Your task to perform on an android device: toggle improve location accuracy Image 0: 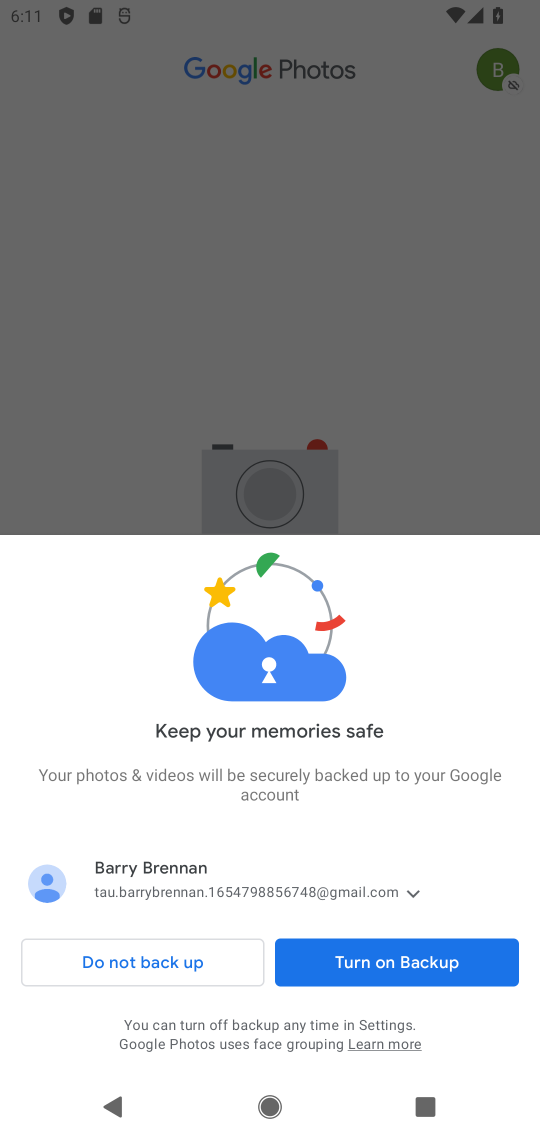
Step 0: click (419, 952)
Your task to perform on an android device: toggle improve location accuracy Image 1: 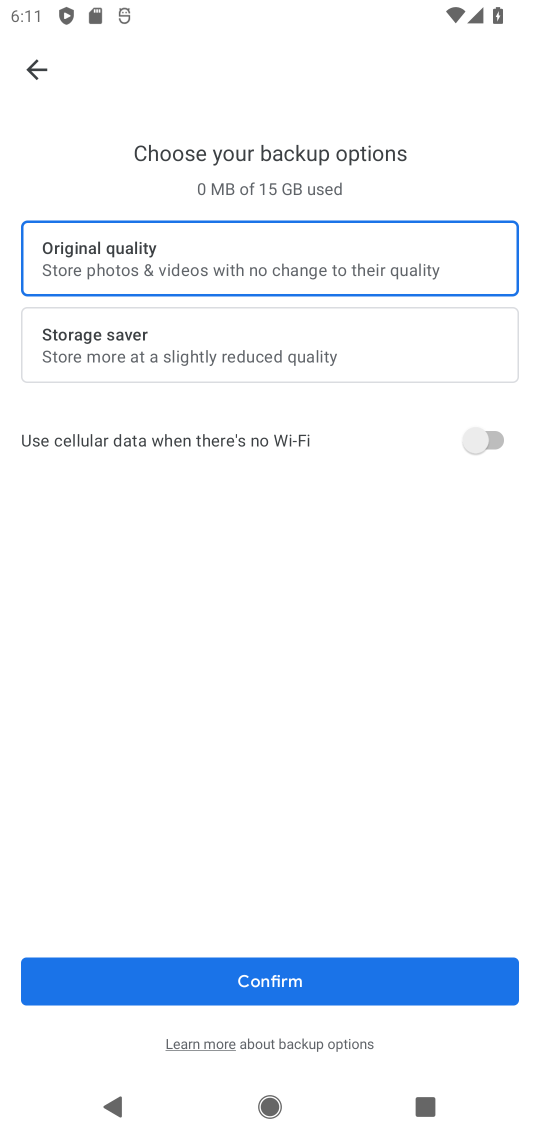
Step 1: press home button
Your task to perform on an android device: toggle improve location accuracy Image 2: 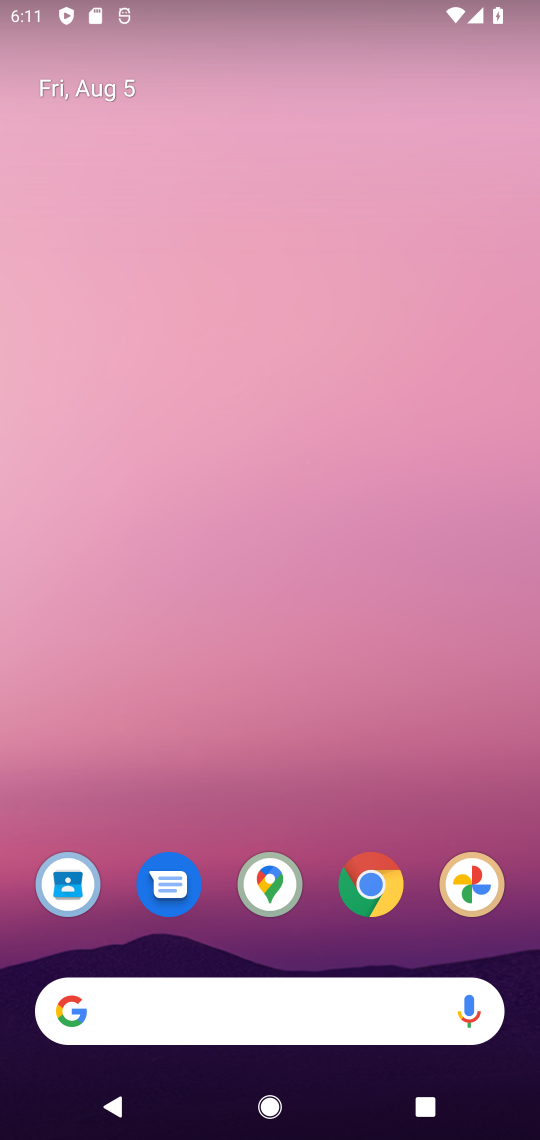
Step 2: drag from (324, 894) to (314, 180)
Your task to perform on an android device: toggle improve location accuracy Image 3: 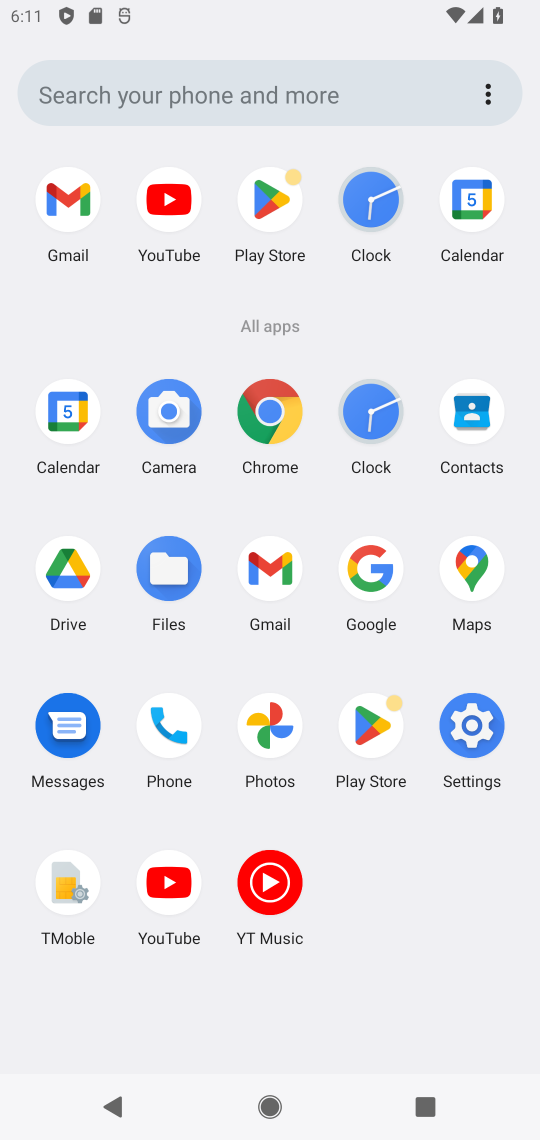
Step 3: click (486, 730)
Your task to perform on an android device: toggle improve location accuracy Image 4: 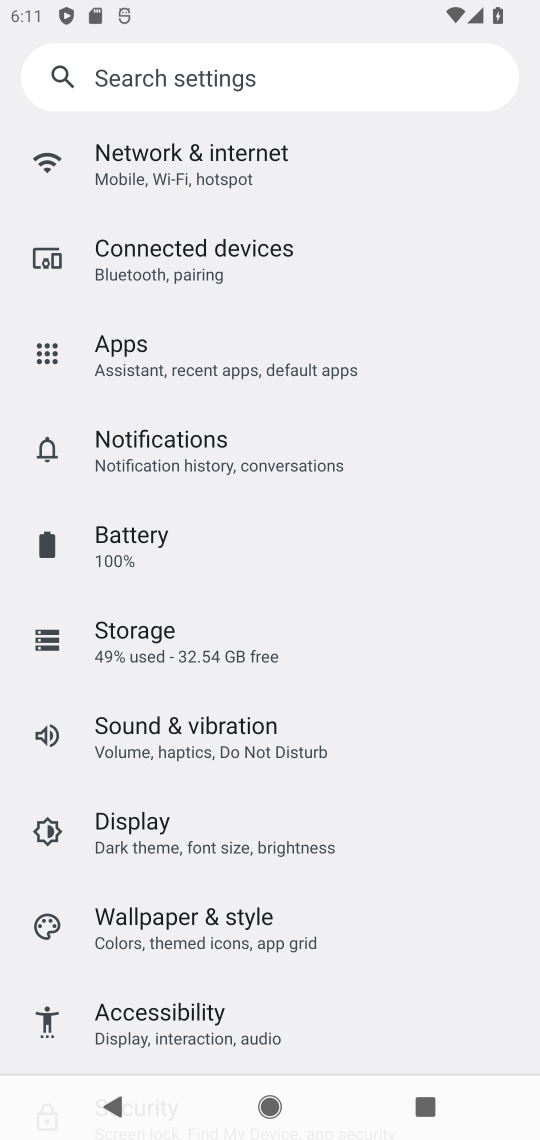
Step 4: drag from (218, 978) to (211, 606)
Your task to perform on an android device: toggle improve location accuracy Image 5: 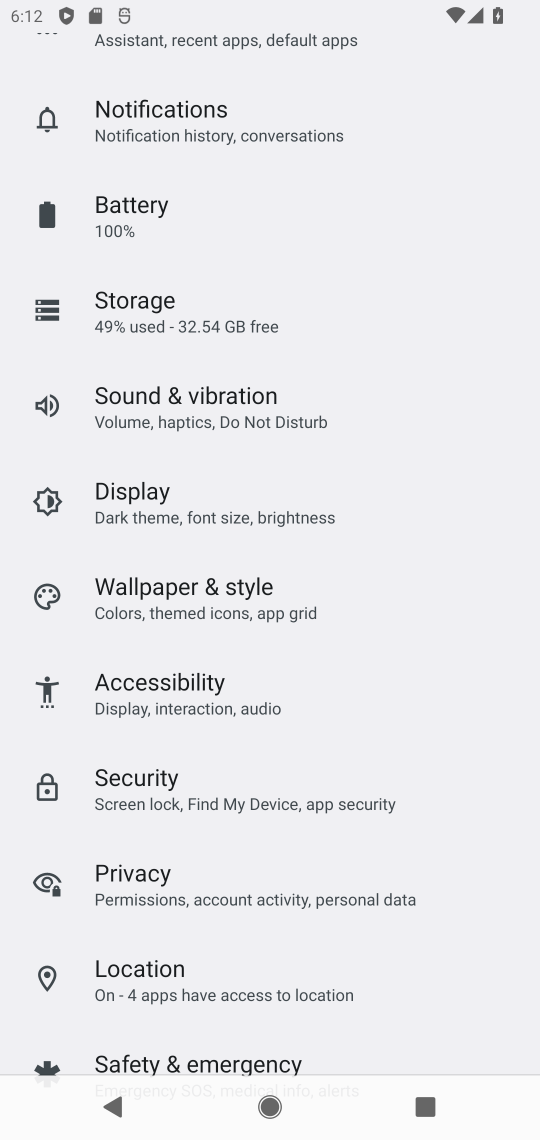
Step 5: click (207, 955)
Your task to perform on an android device: toggle improve location accuracy Image 6: 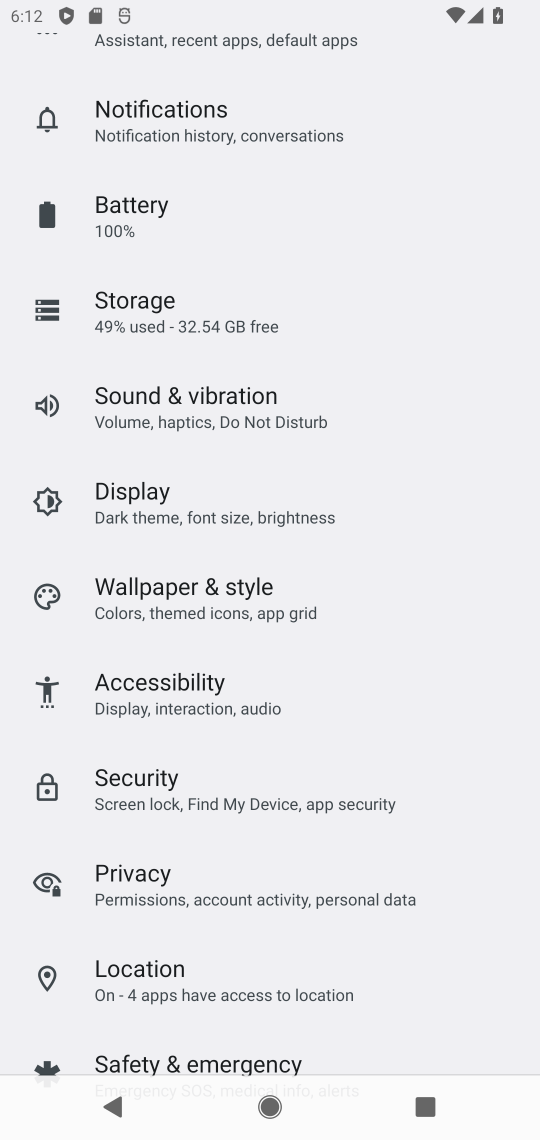
Step 6: click (202, 973)
Your task to perform on an android device: toggle improve location accuracy Image 7: 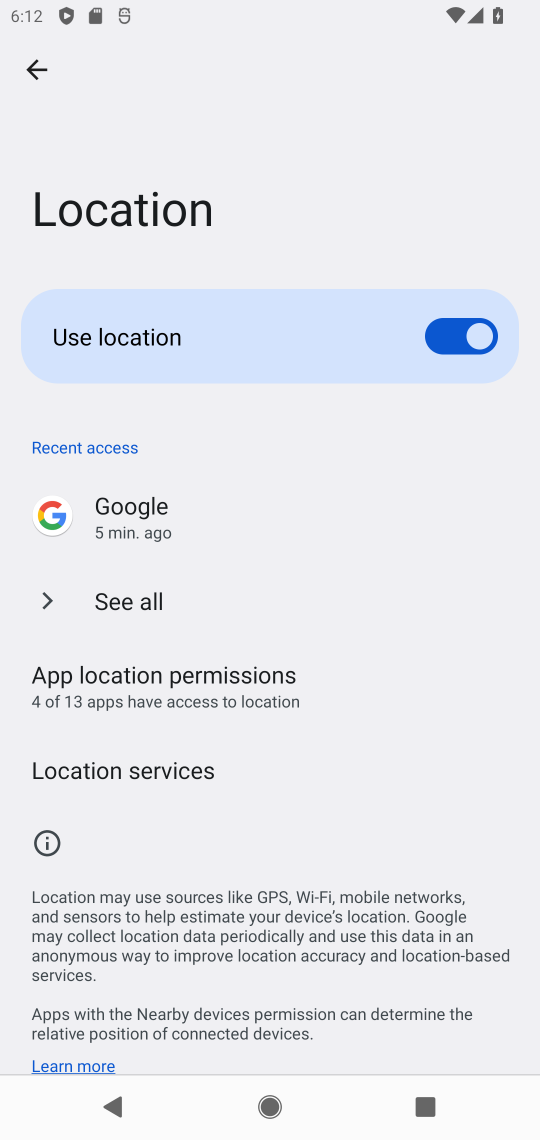
Step 7: click (67, 770)
Your task to perform on an android device: toggle improve location accuracy Image 8: 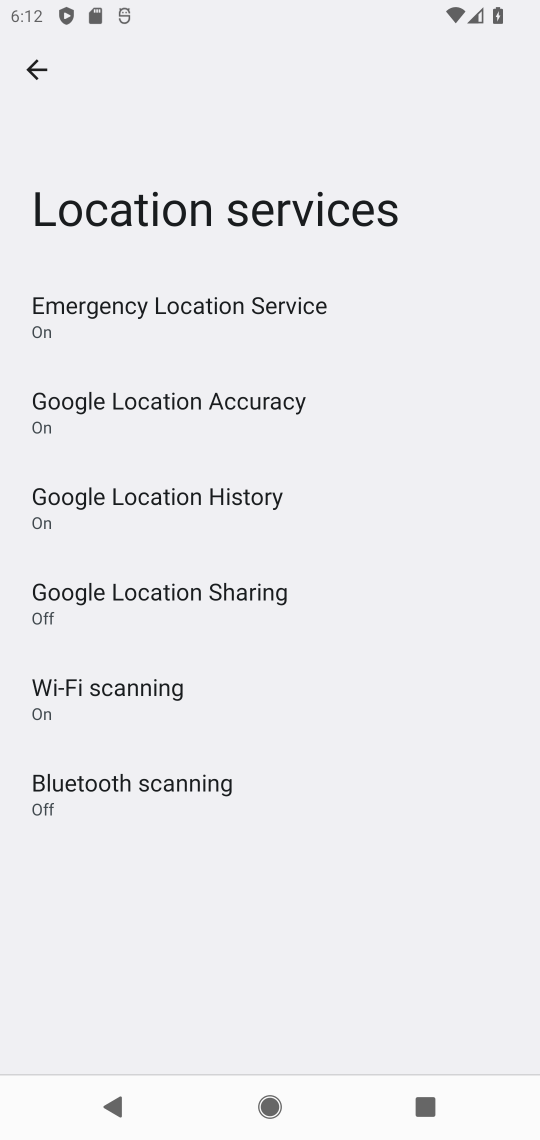
Step 8: click (72, 411)
Your task to perform on an android device: toggle improve location accuracy Image 9: 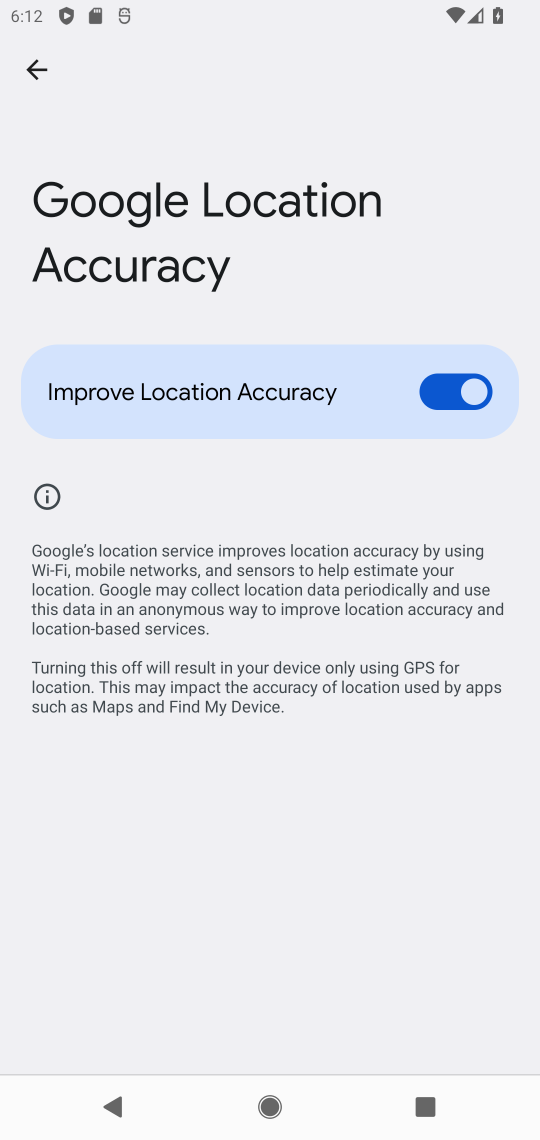
Step 9: click (423, 385)
Your task to perform on an android device: toggle improve location accuracy Image 10: 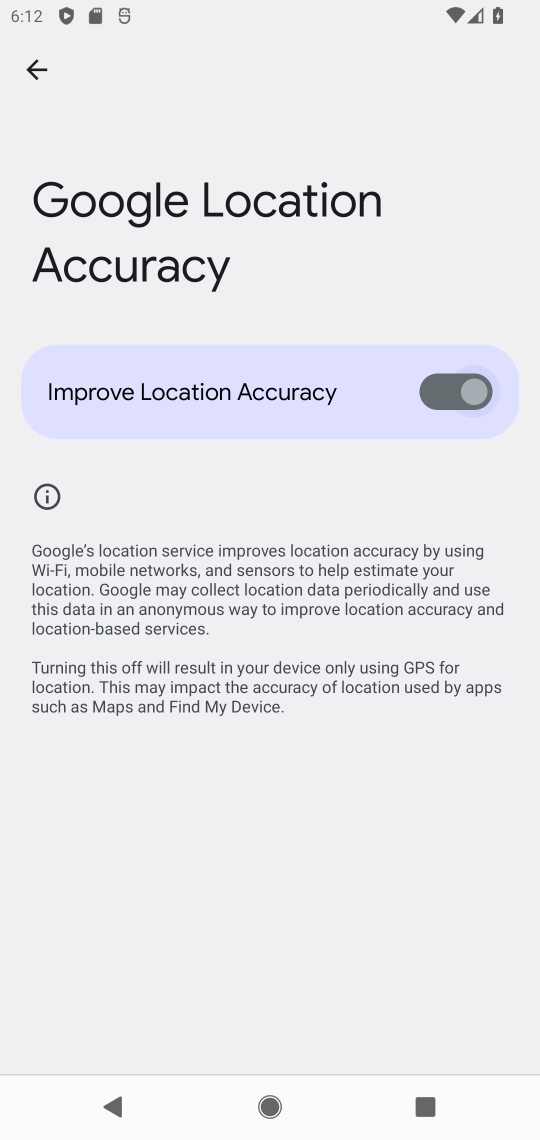
Step 10: task complete